Your task to perform on an android device: change notifications settings Image 0: 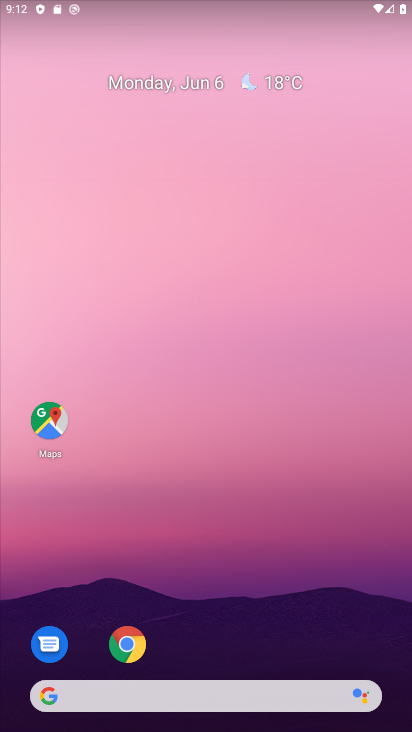
Step 0: drag from (366, 657) to (361, 180)
Your task to perform on an android device: change notifications settings Image 1: 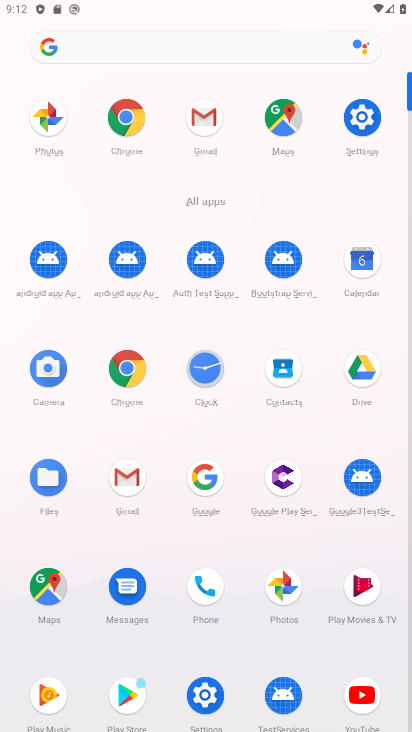
Step 1: click (210, 704)
Your task to perform on an android device: change notifications settings Image 2: 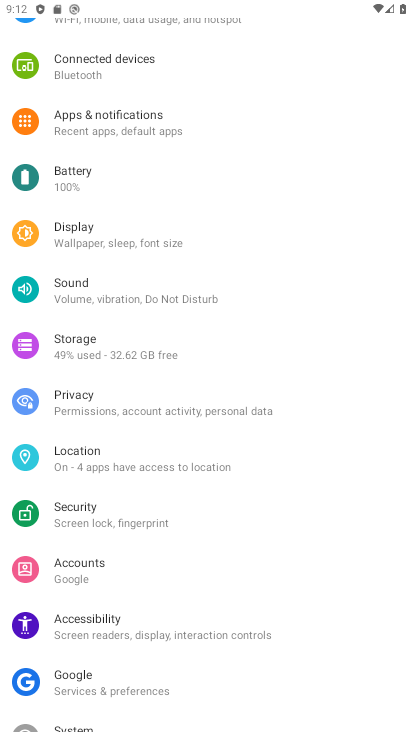
Step 2: click (144, 115)
Your task to perform on an android device: change notifications settings Image 3: 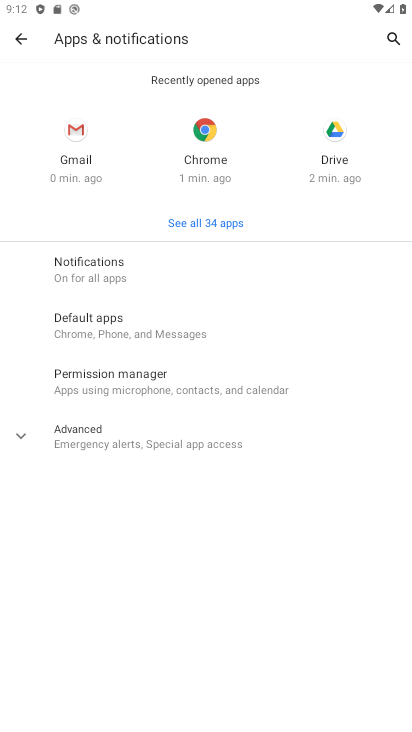
Step 3: click (137, 268)
Your task to perform on an android device: change notifications settings Image 4: 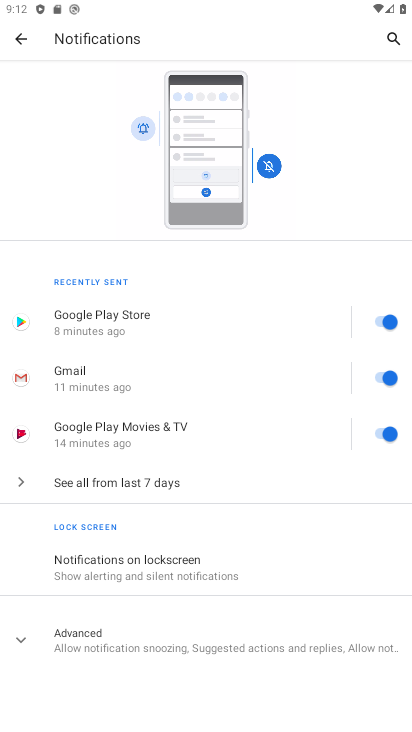
Step 4: task complete